Your task to perform on an android device: Open Google Chrome and click the shortcut for Amazon.com Image 0: 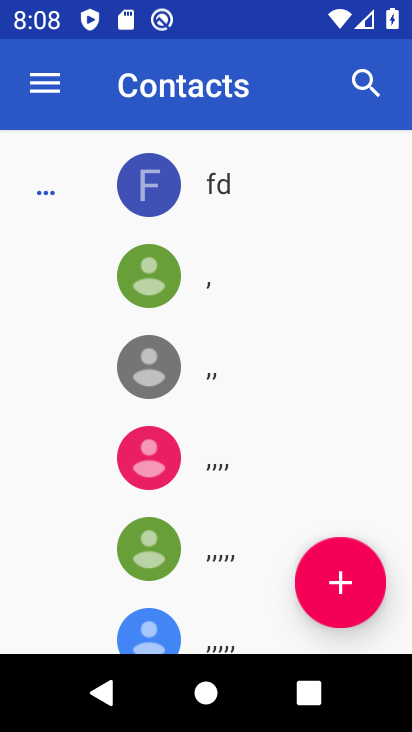
Step 0: press home button
Your task to perform on an android device: Open Google Chrome and click the shortcut for Amazon.com Image 1: 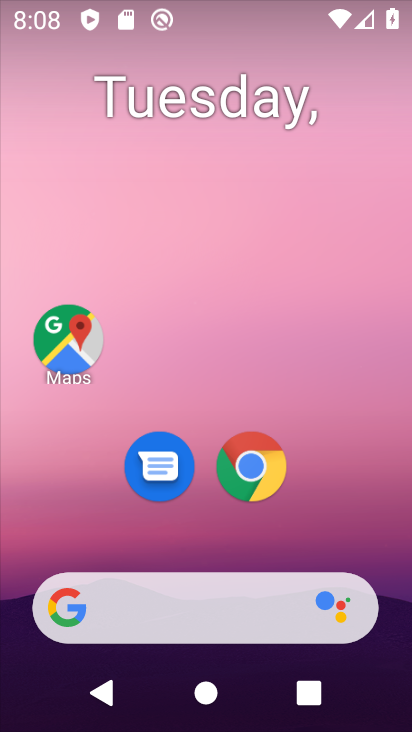
Step 1: click (260, 487)
Your task to perform on an android device: Open Google Chrome and click the shortcut for Amazon.com Image 2: 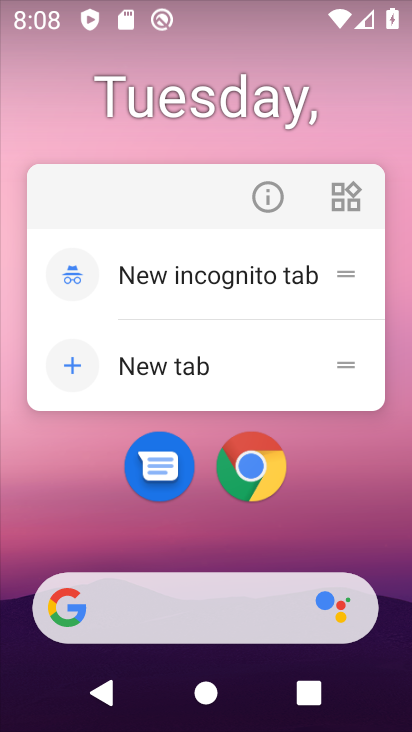
Step 2: click (253, 469)
Your task to perform on an android device: Open Google Chrome and click the shortcut for Amazon.com Image 3: 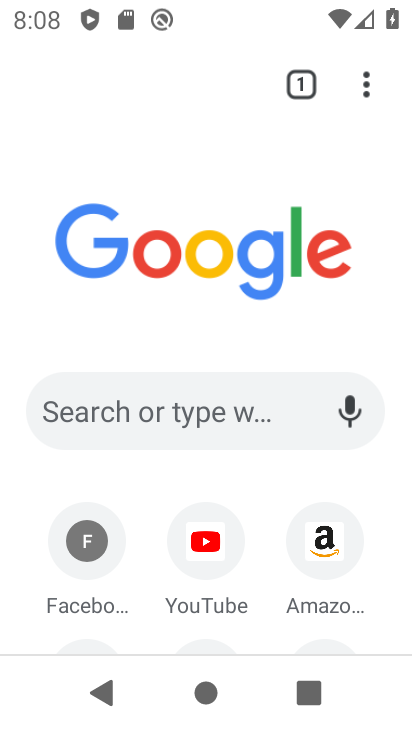
Step 3: click (332, 564)
Your task to perform on an android device: Open Google Chrome and click the shortcut for Amazon.com Image 4: 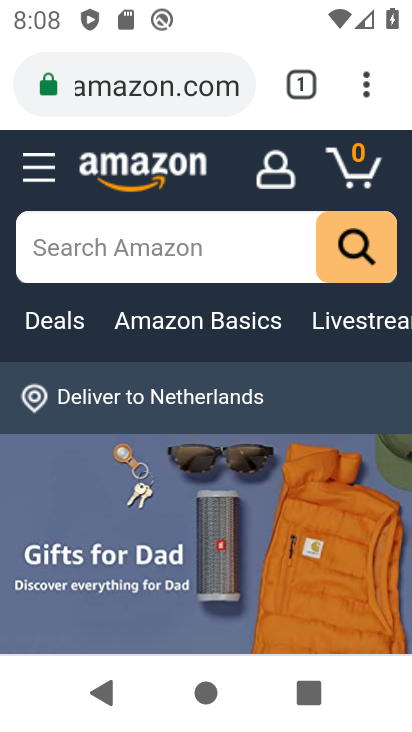
Step 4: task complete